Your task to perform on an android device: add a contact Image 0: 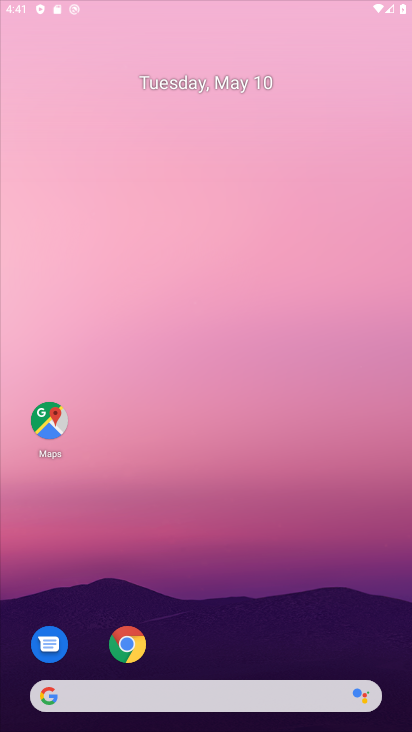
Step 0: click (47, 415)
Your task to perform on an android device: add a contact Image 1: 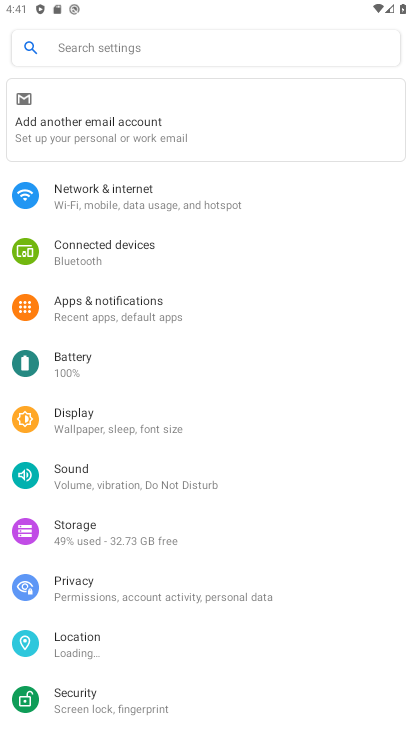
Step 1: press home button
Your task to perform on an android device: add a contact Image 2: 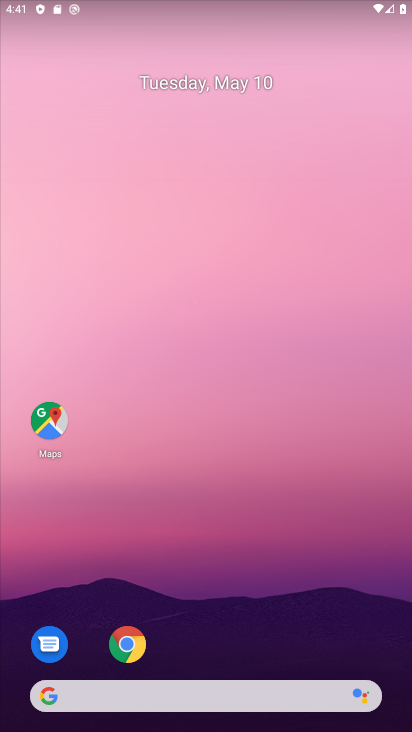
Step 2: drag from (216, 667) to (243, 32)
Your task to perform on an android device: add a contact Image 3: 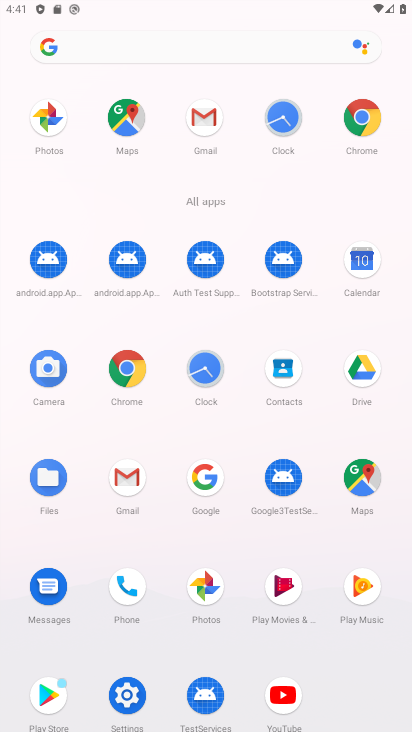
Step 3: click (282, 366)
Your task to perform on an android device: add a contact Image 4: 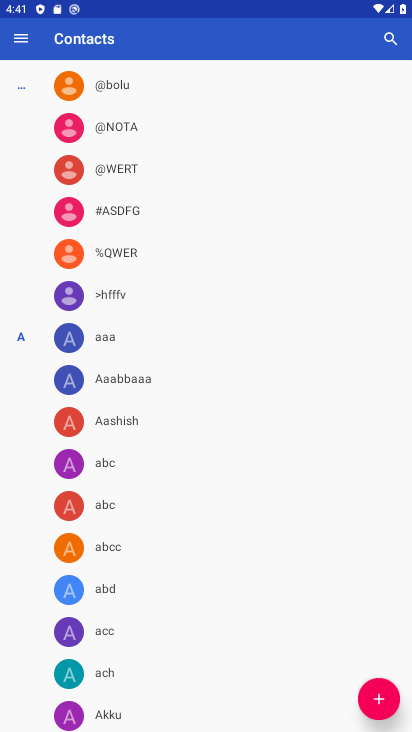
Step 4: click (376, 698)
Your task to perform on an android device: add a contact Image 5: 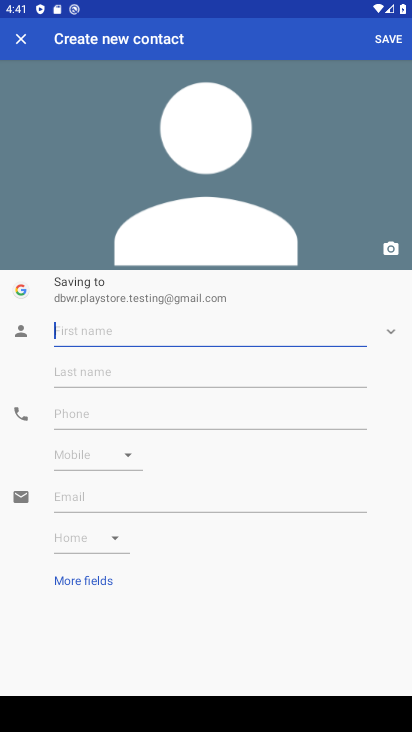
Step 5: click (96, 333)
Your task to perform on an android device: add a contact Image 6: 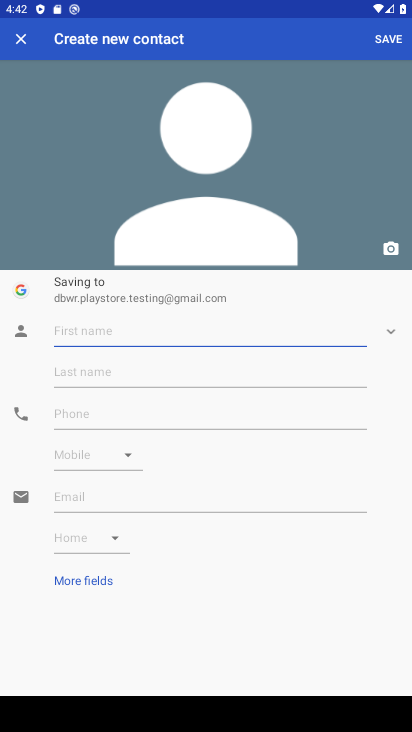
Step 6: type "@$#bg"
Your task to perform on an android device: add a contact Image 7: 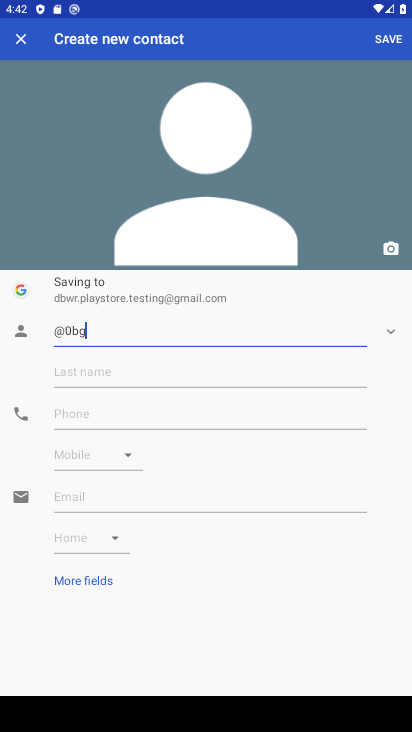
Step 7: click (387, 35)
Your task to perform on an android device: add a contact Image 8: 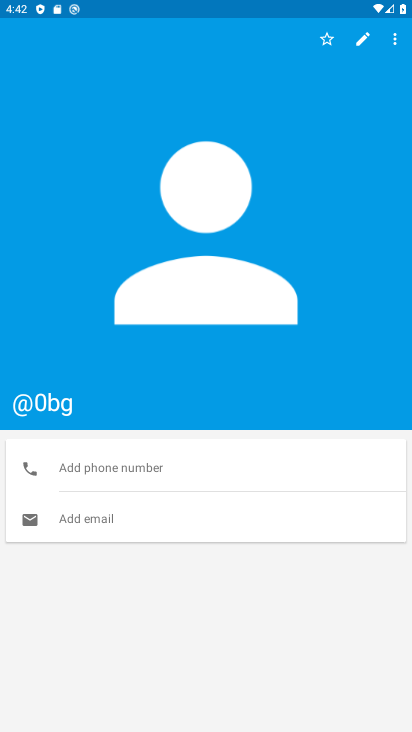
Step 8: task complete